Your task to perform on an android device: Add dell alienware to the cart on costco Image 0: 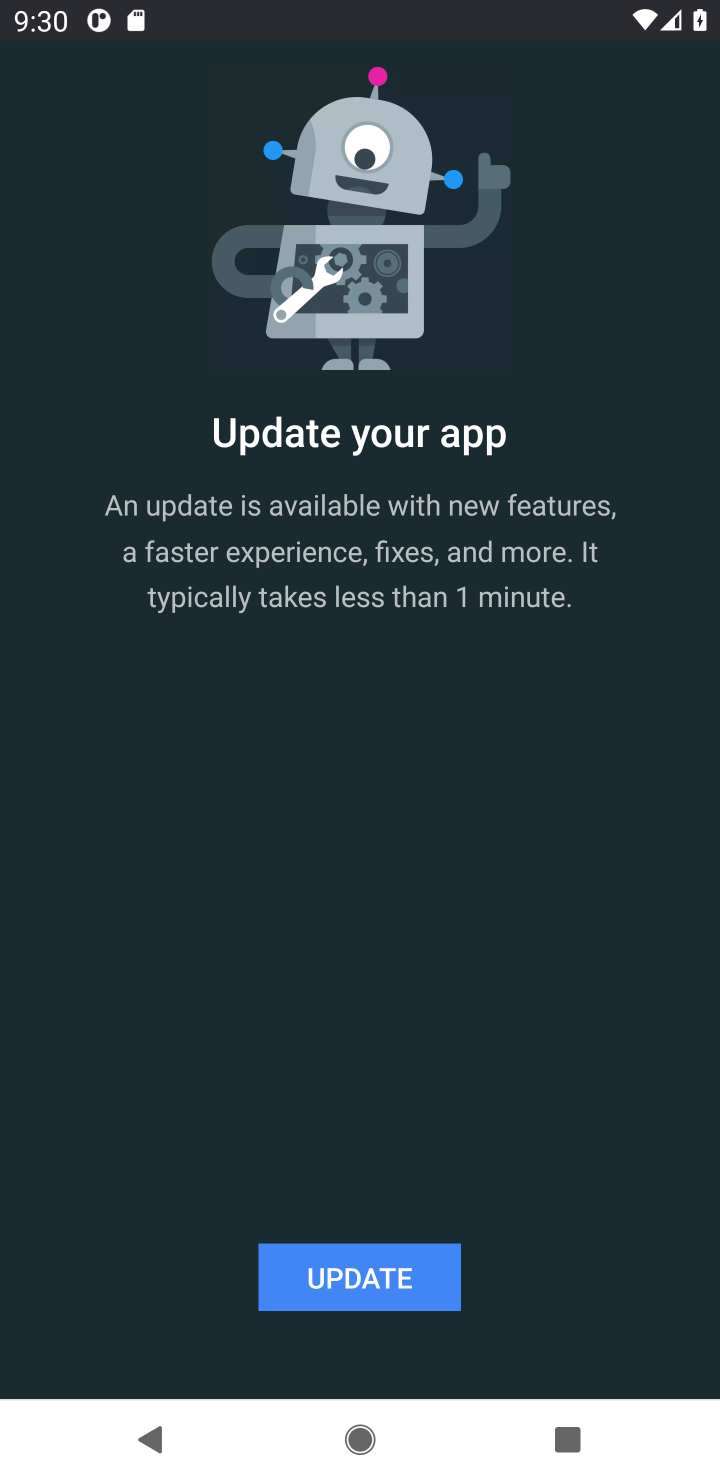
Step 0: press home button
Your task to perform on an android device: Add dell alienware to the cart on costco Image 1: 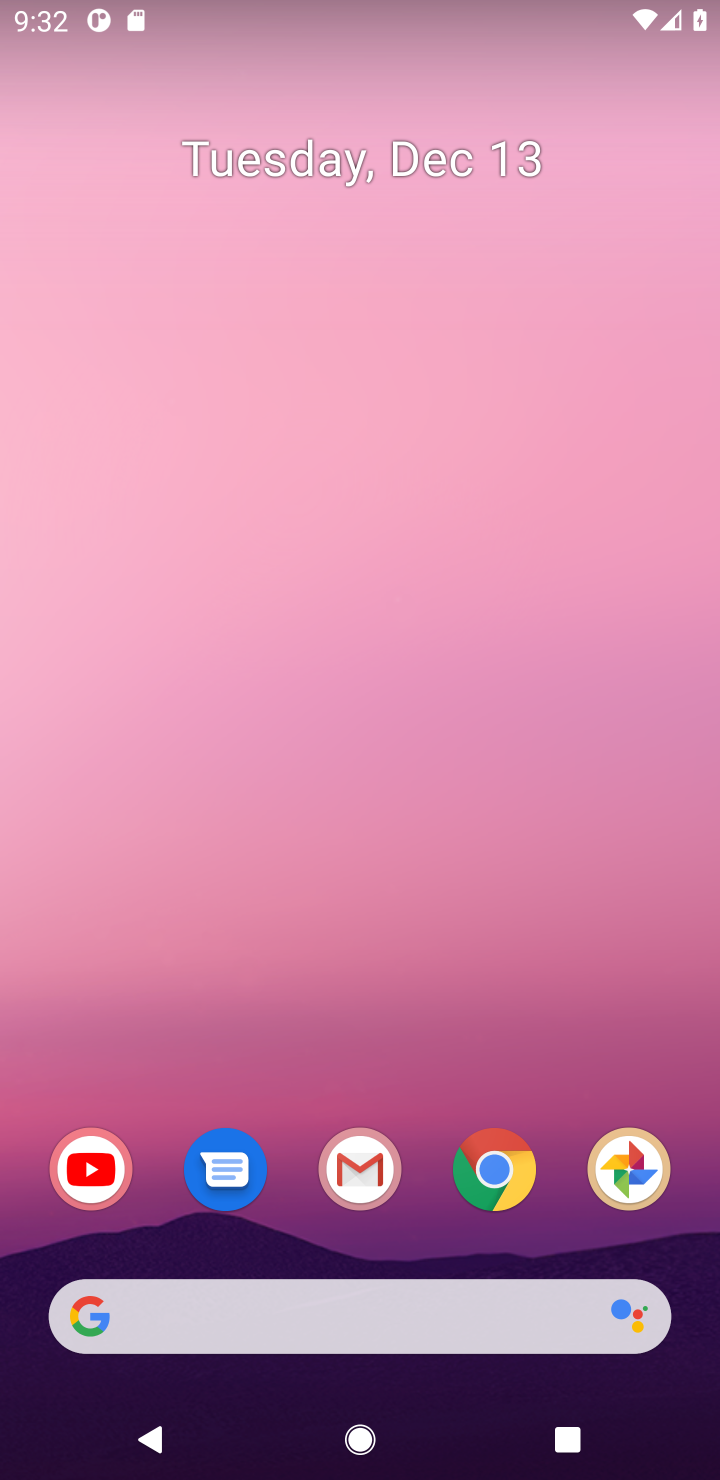
Step 1: click (478, 1183)
Your task to perform on an android device: Add dell alienware to the cart on costco Image 2: 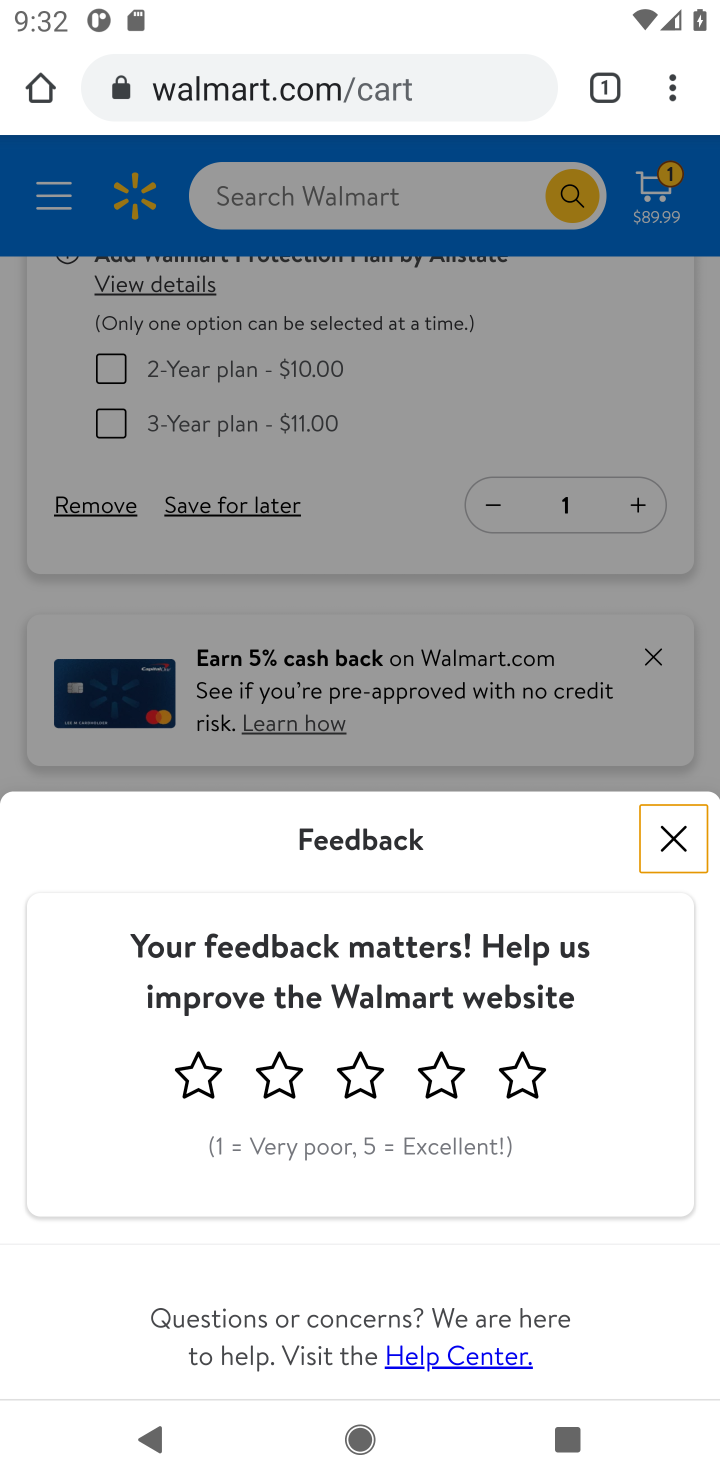
Step 2: click (656, 833)
Your task to perform on an android device: Add dell alienware to the cart on costco Image 3: 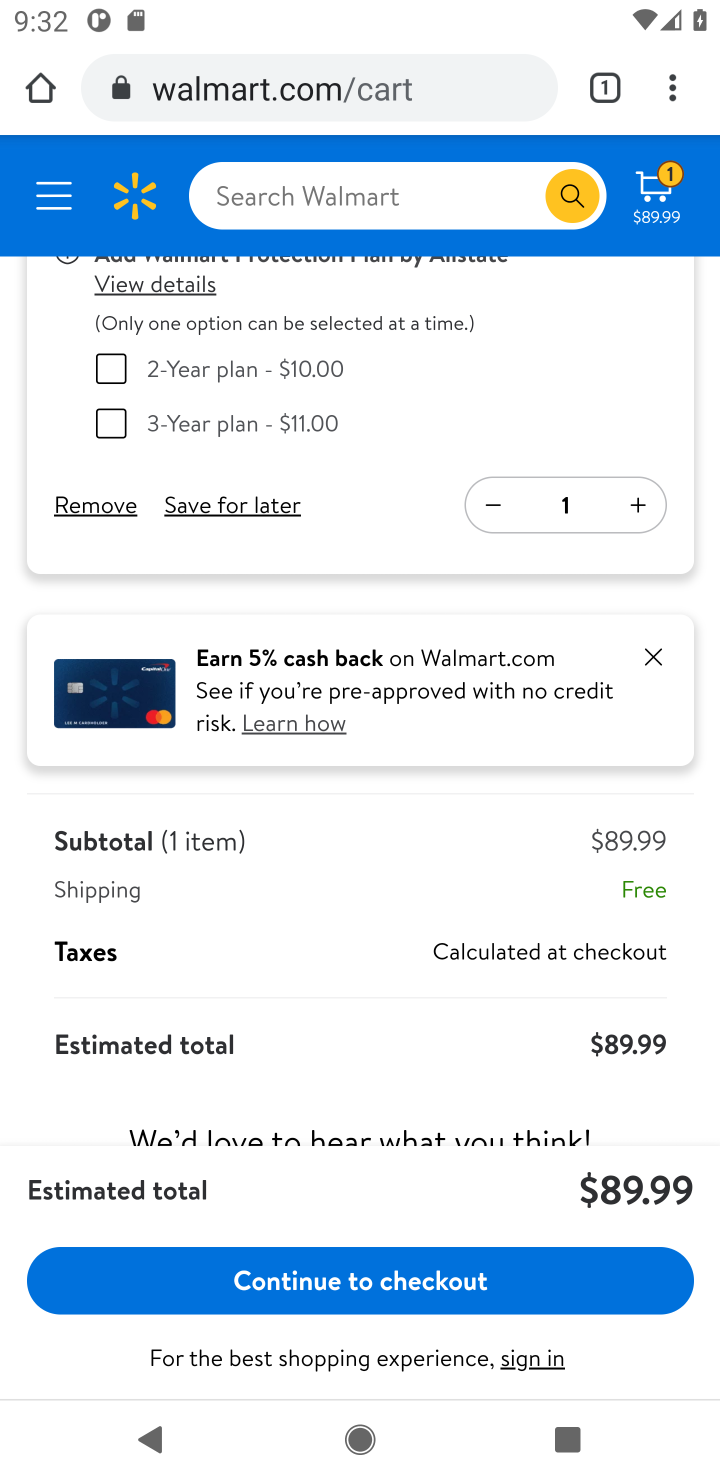
Step 3: click (304, 104)
Your task to perform on an android device: Add dell alienware to the cart on costco Image 4: 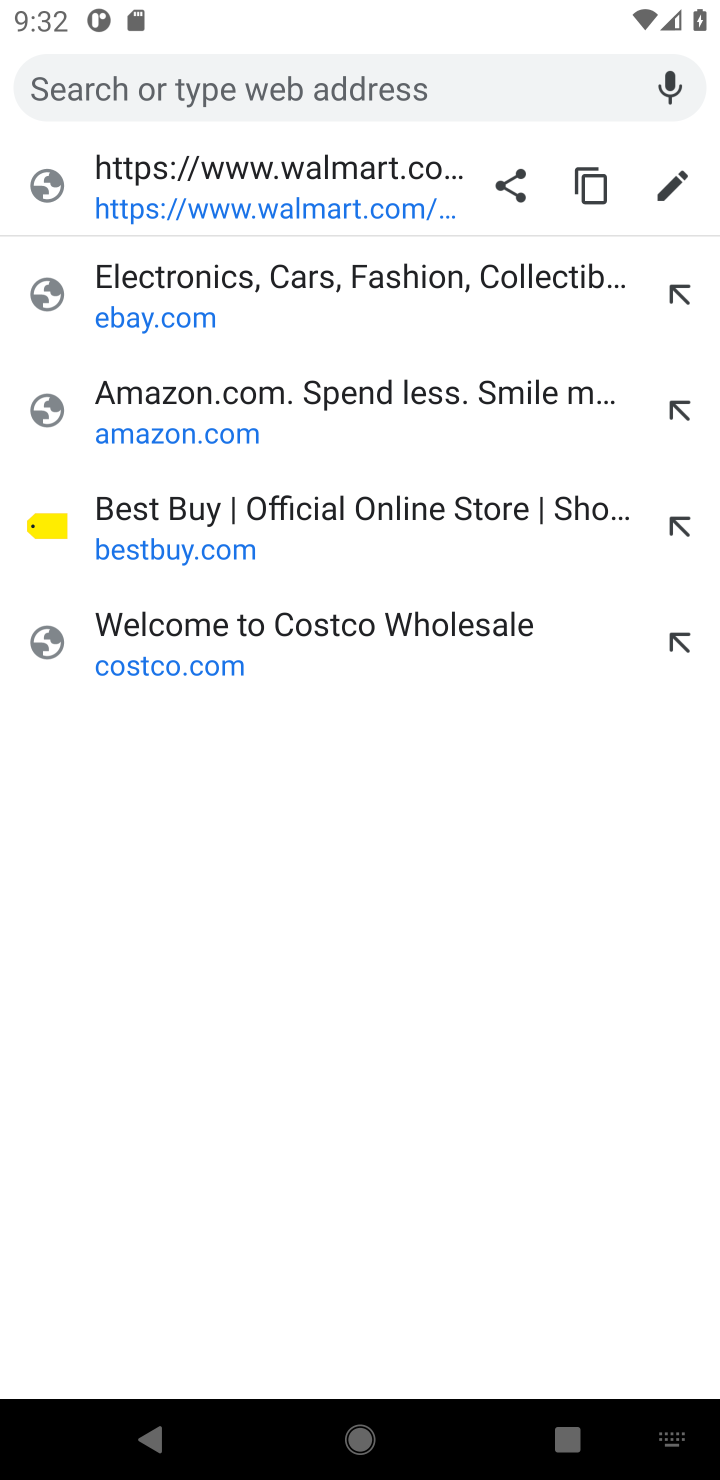
Step 4: type "costco"
Your task to perform on an android device: Add dell alienware to the cart on costco Image 5: 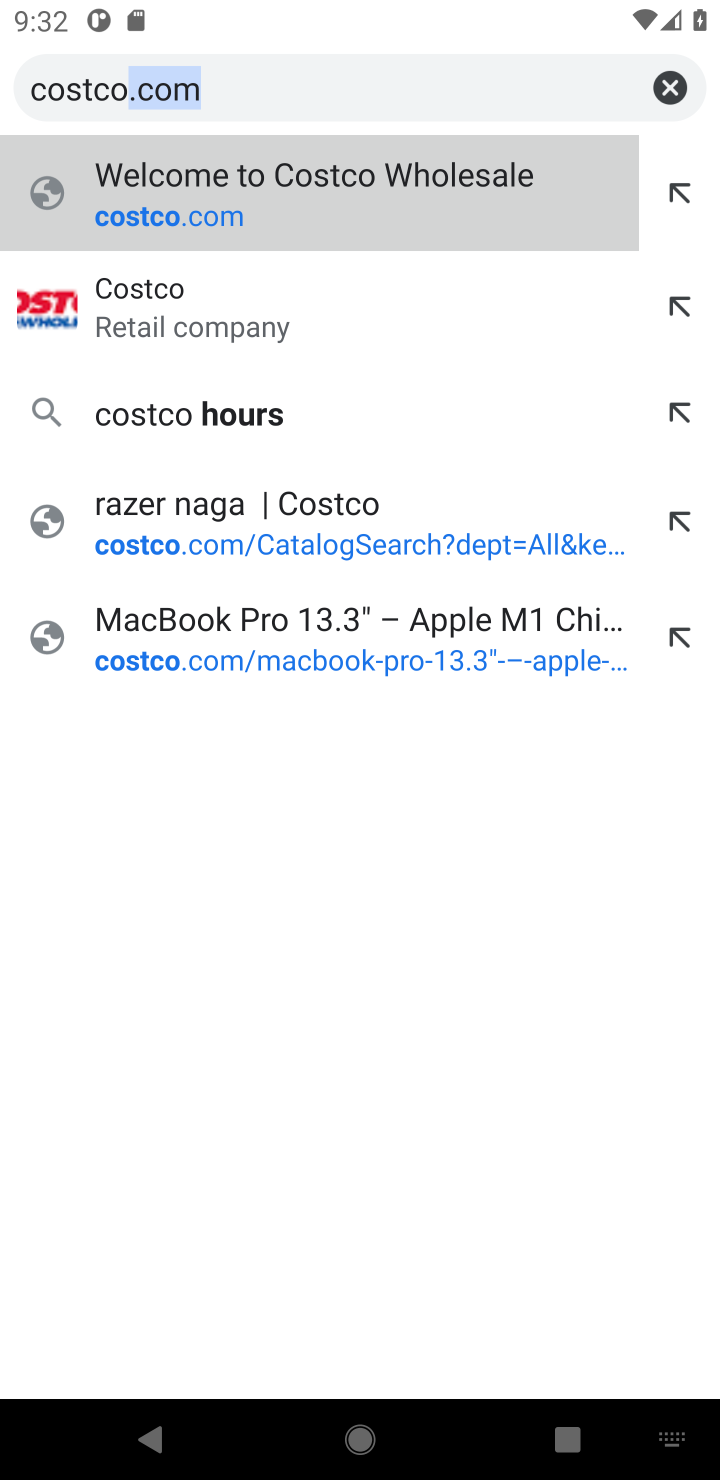
Step 5: click (200, 206)
Your task to perform on an android device: Add dell alienware to the cart on costco Image 6: 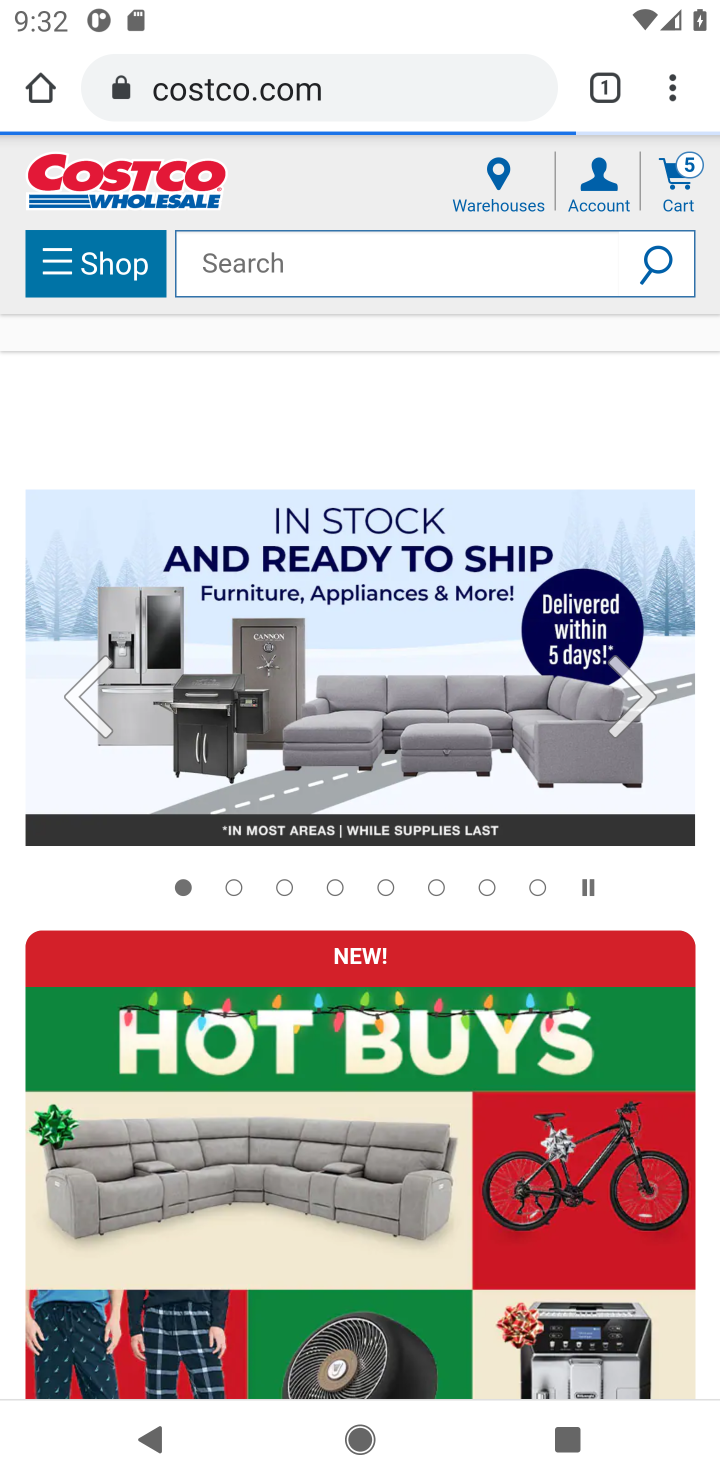
Step 6: click (302, 272)
Your task to perform on an android device: Add dell alienware to the cart on costco Image 7: 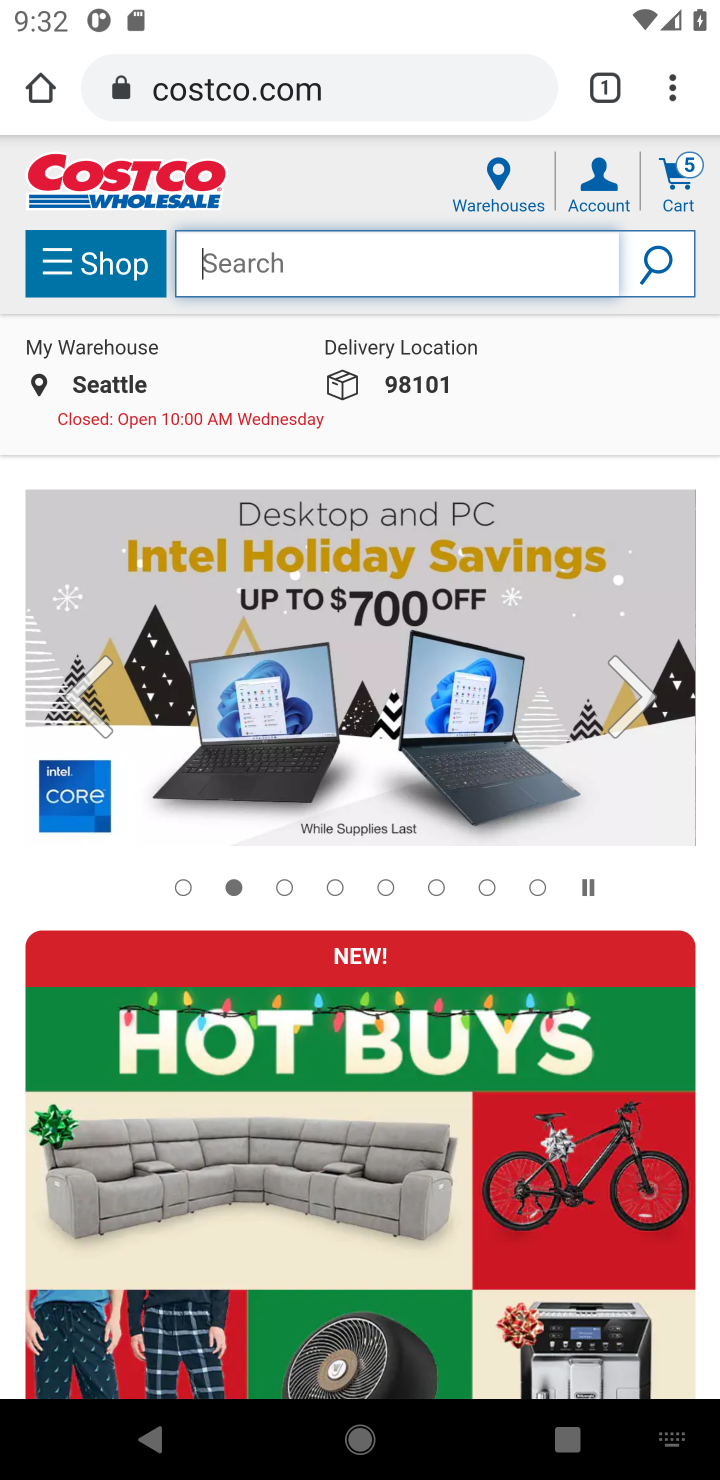
Step 7: type "delll alienware"
Your task to perform on an android device: Add dell alienware to the cart on costco Image 8: 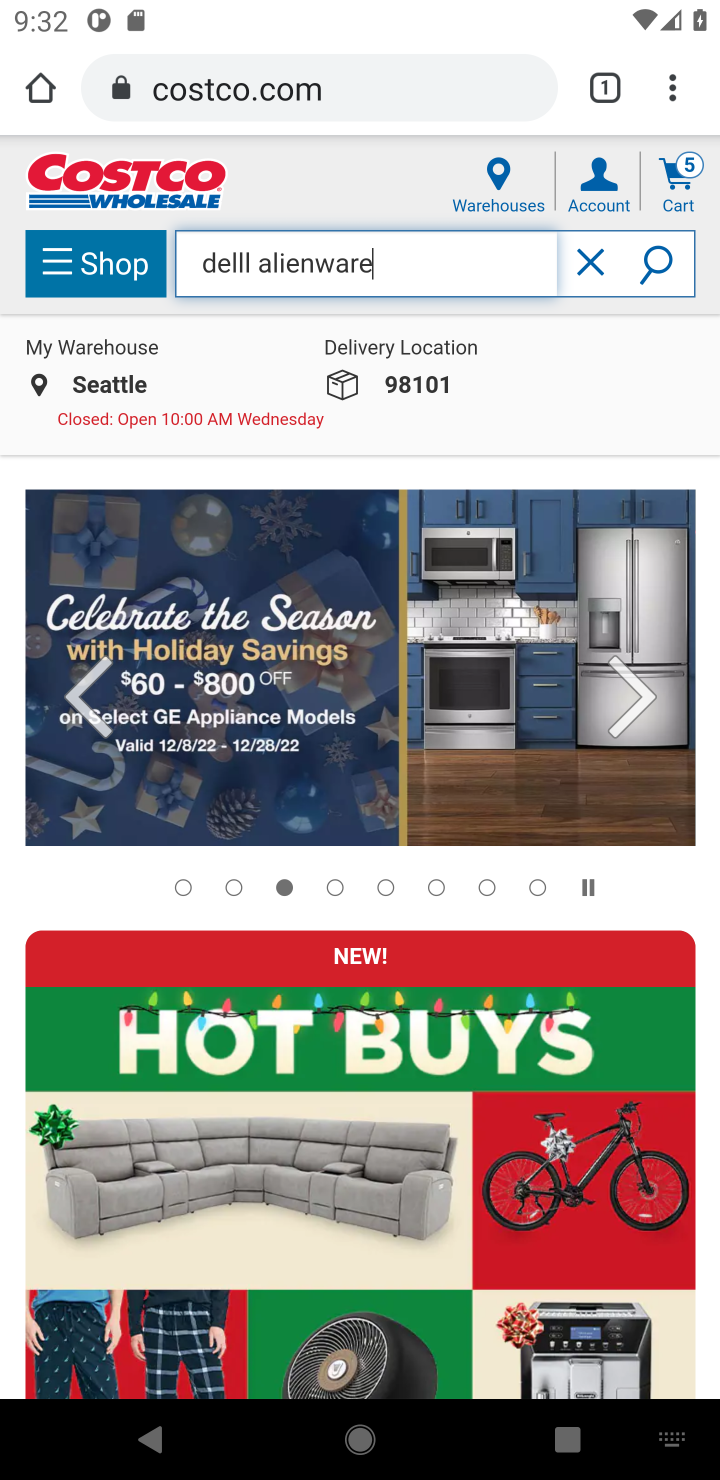
Step 8: click (651, 270)
Your task to perform on an android device: Add dell alienware to the cart on costco Image 9: 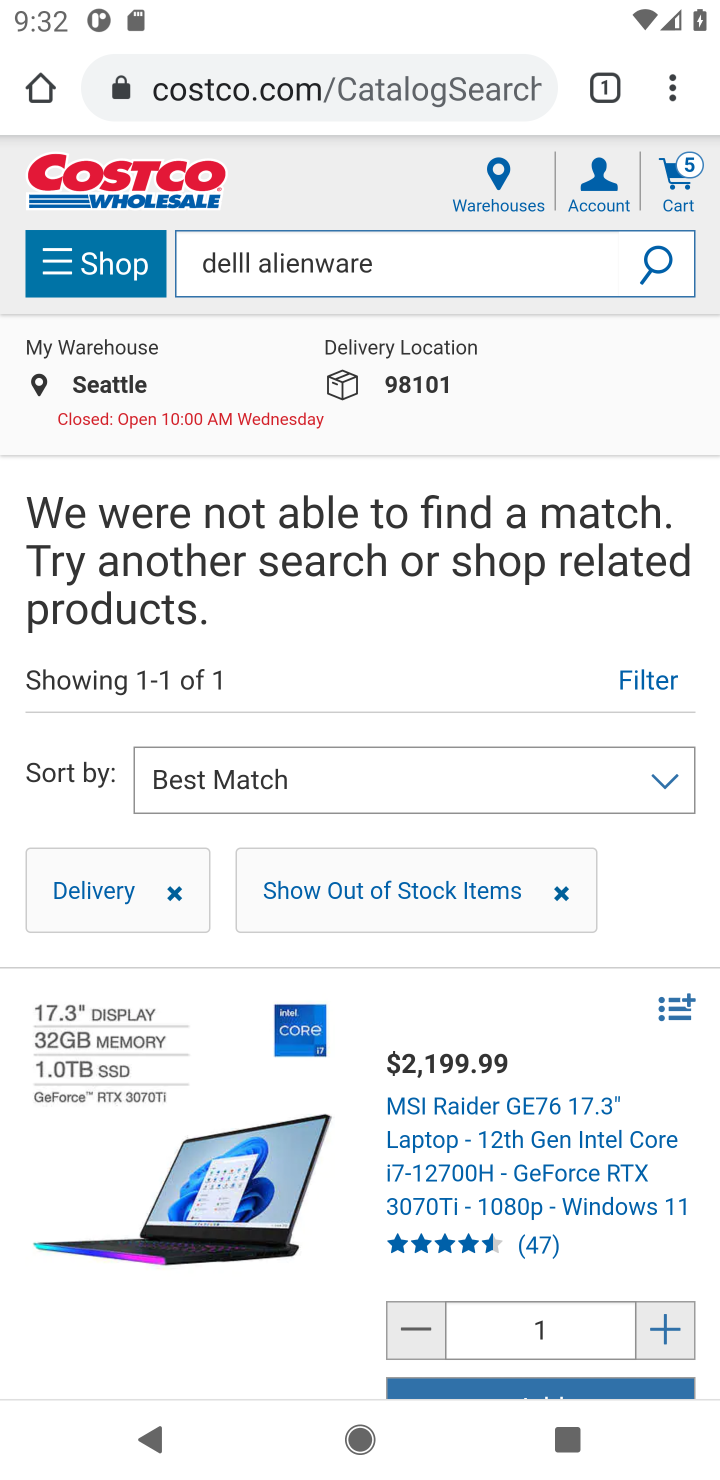
Step 9: drag from (557, 1243) to (531, 894)
Your task to perform on an android device: Add dell alienware to the cart on costco Image 10: 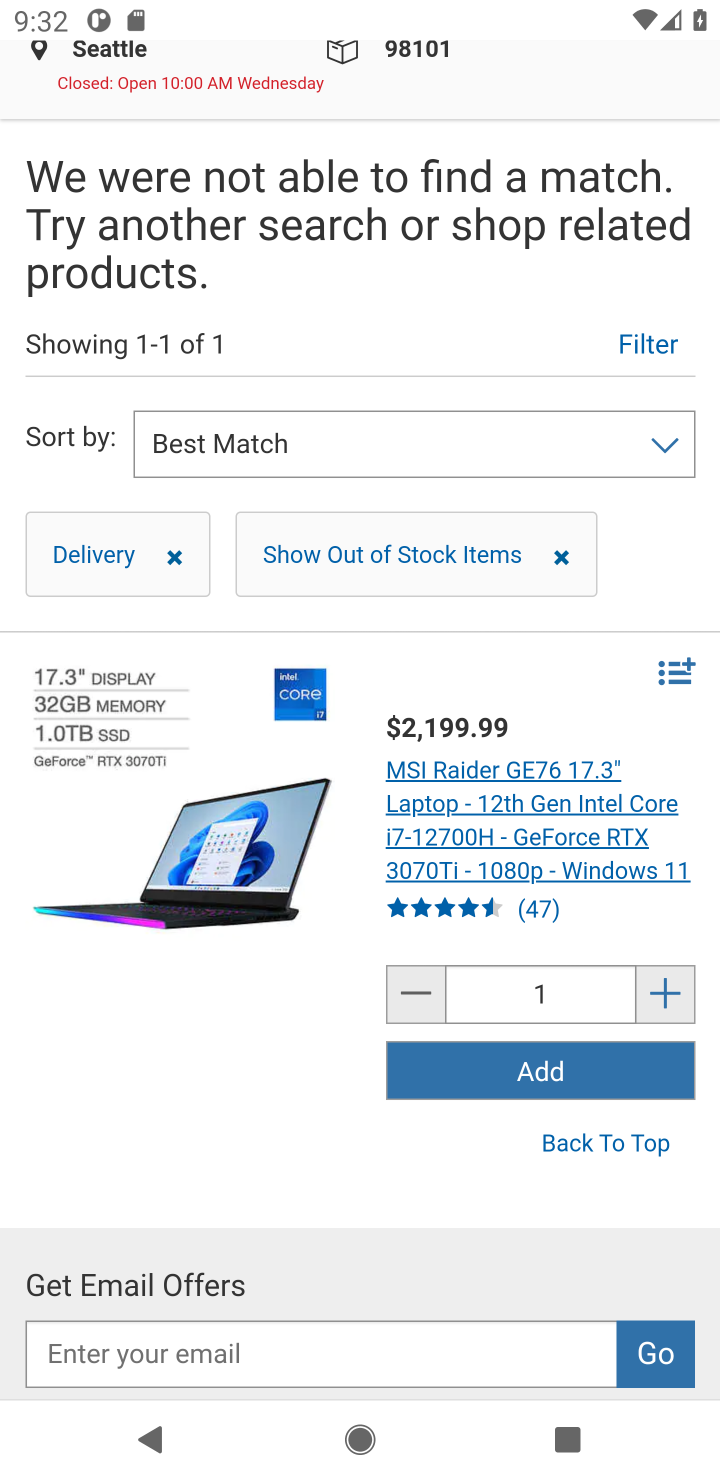
Step 10: click (593, 1061)
Your task to perform on an android device: Add dell alienware to the cart on costco Image 11: 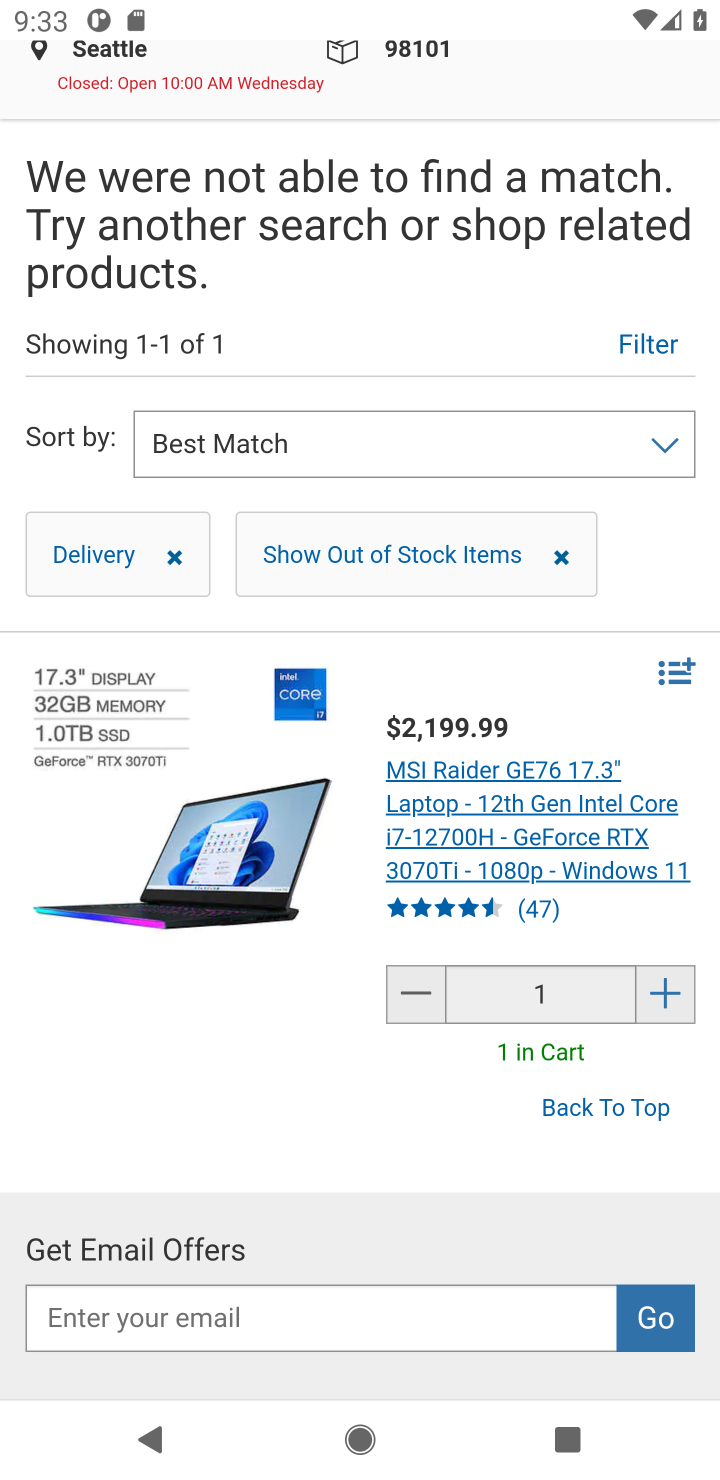
Step 11: task complete